Your task to perform on an android device: Open calendar and show me the first week of next month Image 0: 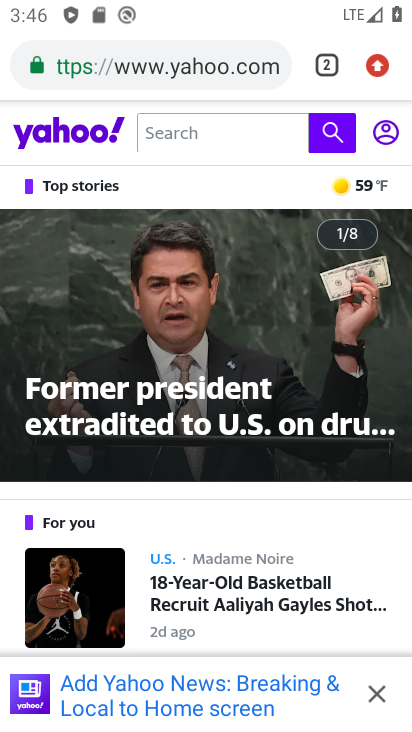
Step 0: press home button
Your task to perform on an android device: Open calendar and show me the first week of next month Image 1: 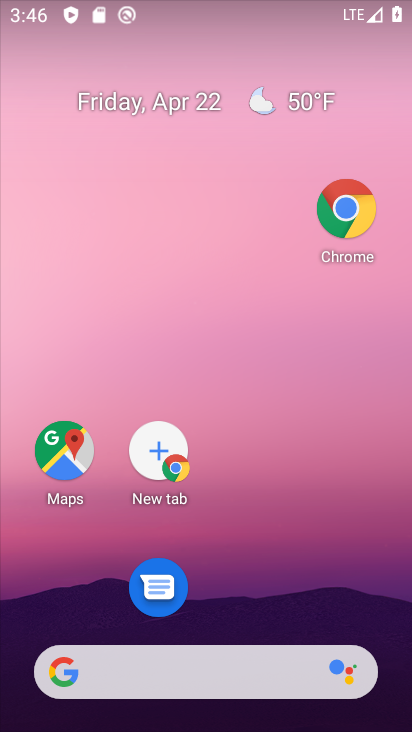
Step 1: click (159, 94)
Your task to perform on an android device: Open calendar and show me the first week of next month Image 2: 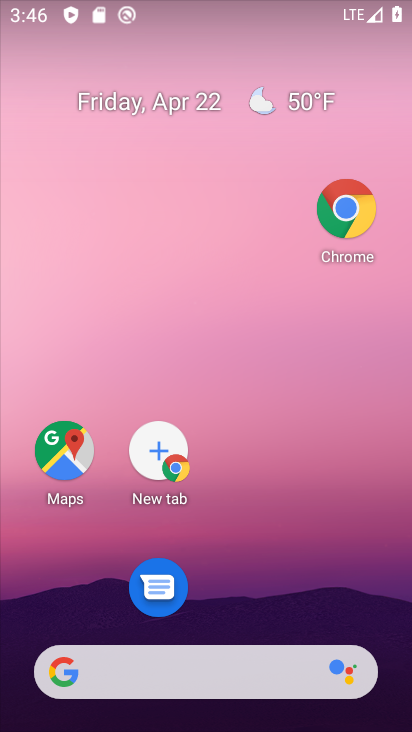
Step 2: click (151, 95)
Your task to perform on an android device: Open calendar and show me the first week of next month Image 3: 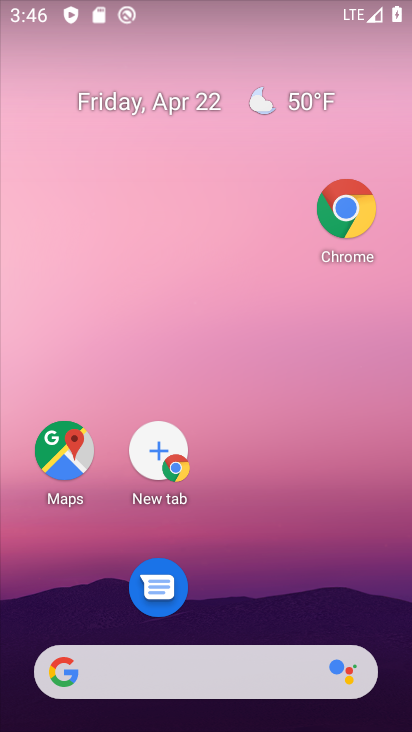
Step 3: click (185, 112)
Your task to perform on an android device: Open calendar and show me the first week of next month Image 4: 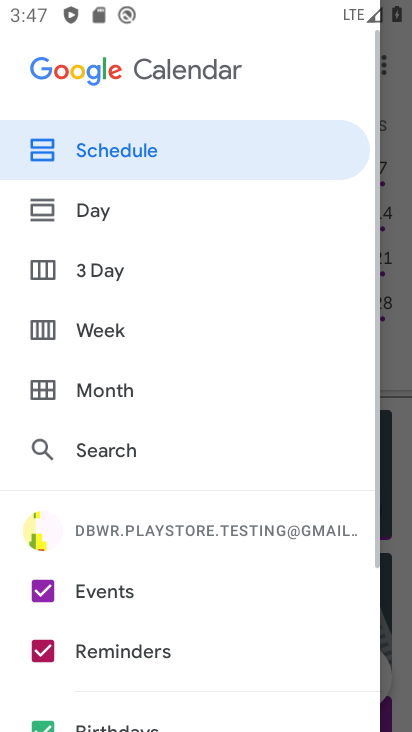
Step 4: click (407, 149)
Your task to perform on an android device: Open calendar and show me the first week of next month Image 5: 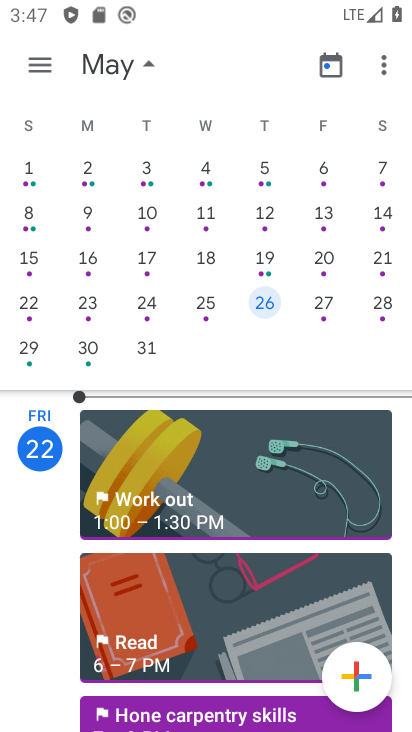
Step 5: click (139, 63)
Your task to perform on an android device: Open calendar and show me the first week of next month Image 6: 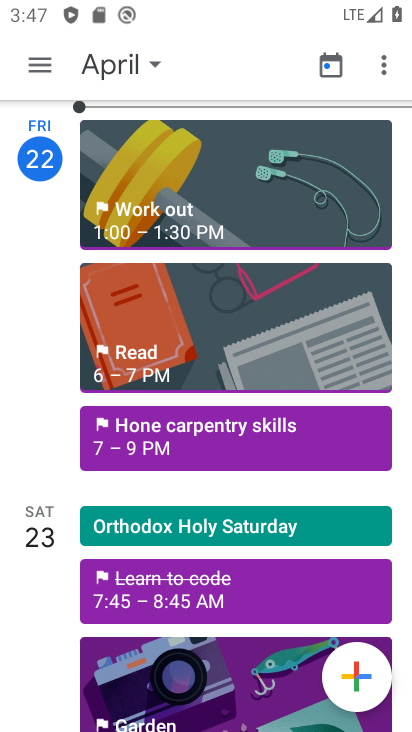
Step 6: click (139, 63)
Your task to perform on an android device: Open calendar and show me the first week of next month Image 7: 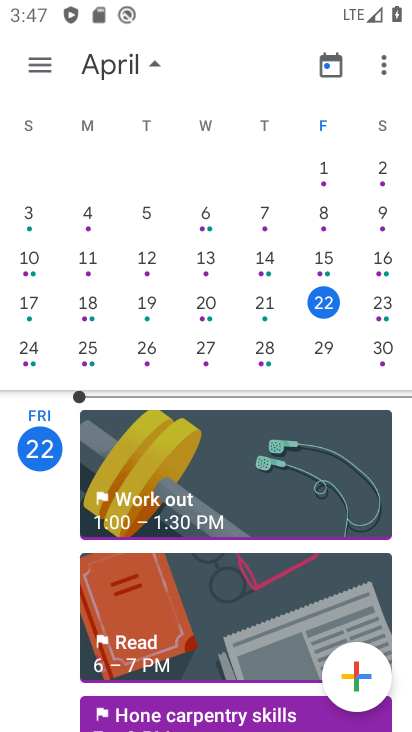
Step 7: drag from (381, 189) to (0, 260)
Your task to perform on an android device: Open calendar and show me the first week of next month Image 8: 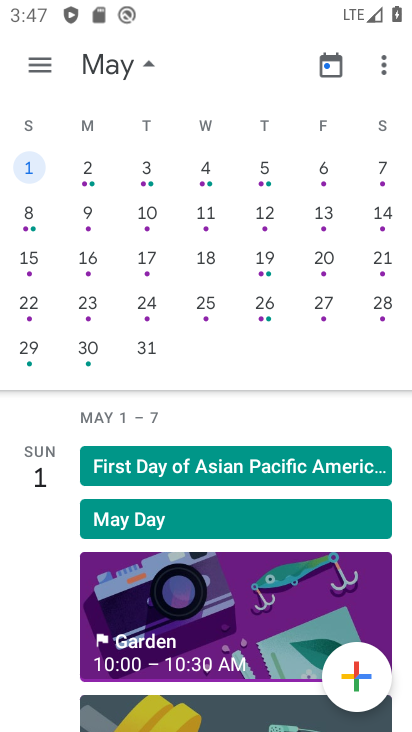
Step 8: click (161, 174)
Your task to perform on an android device: Open calendar and show me the first week of next month Image 9: 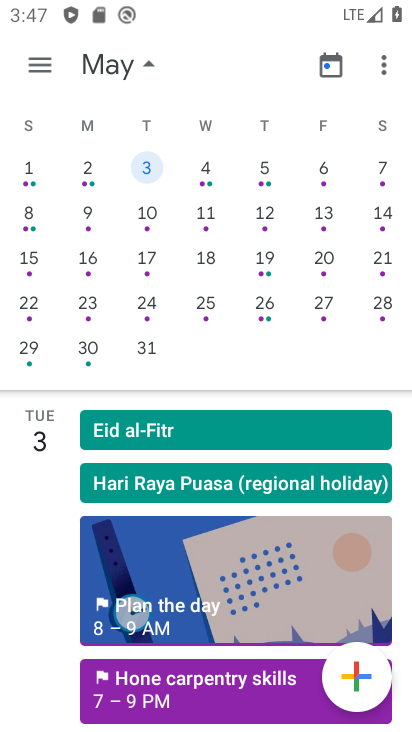
Step 9: task complete